Your task to perform on an android device: turn on location history Image 0: 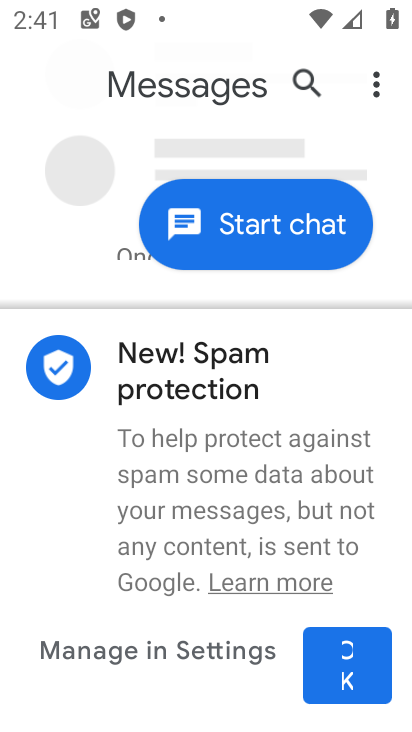
Step 0: press home button
Your task to perform on an android device: turn on location history Image 1: 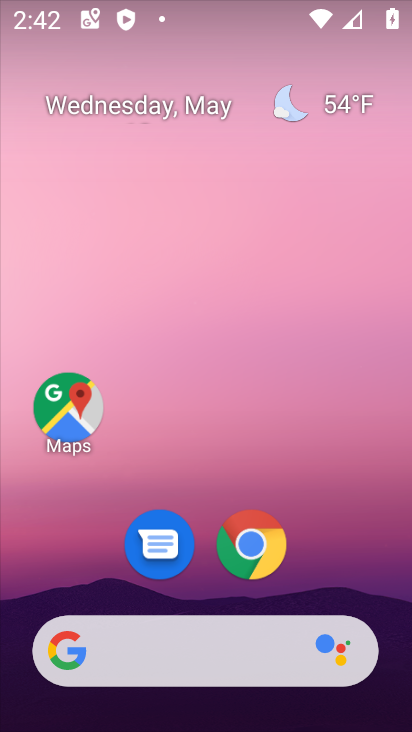
Step 1: drag from (305, 587) to (187, 2)
Your task to perform on an android device: turn on location history Image 2: 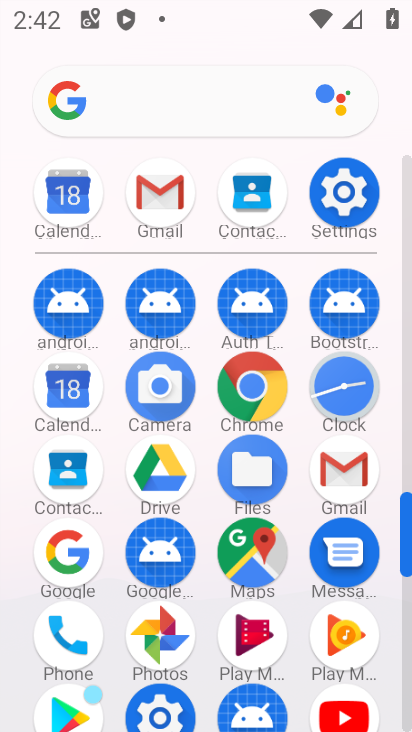
Step 2: click (358, 205)
Your task to perform on an android device: turn on location history Image 3: 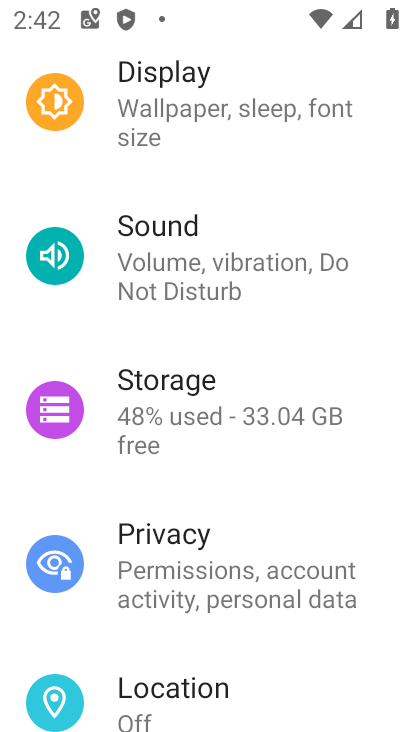
Step 3: drag from (218, 572) to (193, 336)
Your task to perform on an android device: turn on location history Image 4: 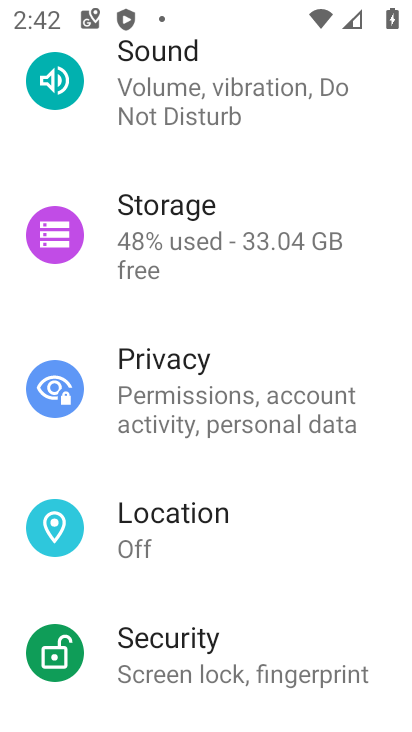
Step 4: click (200, 528)
Your task to perform on an android device: turn on location history Image 5: 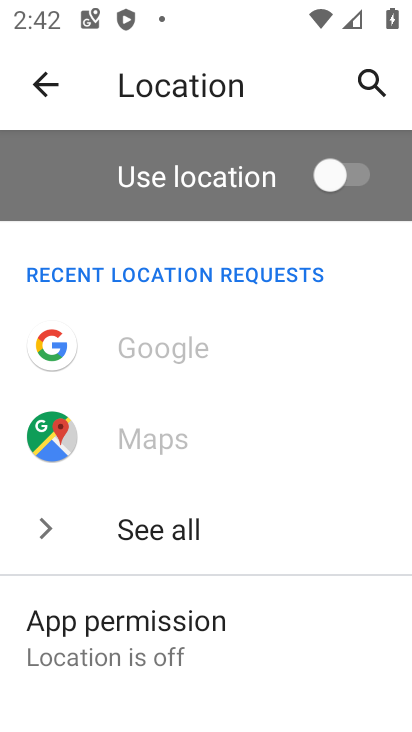
Step 5: drag from (257, 531) to (184, 215)
Your task to perform on an android device: turn on location history Image 6: 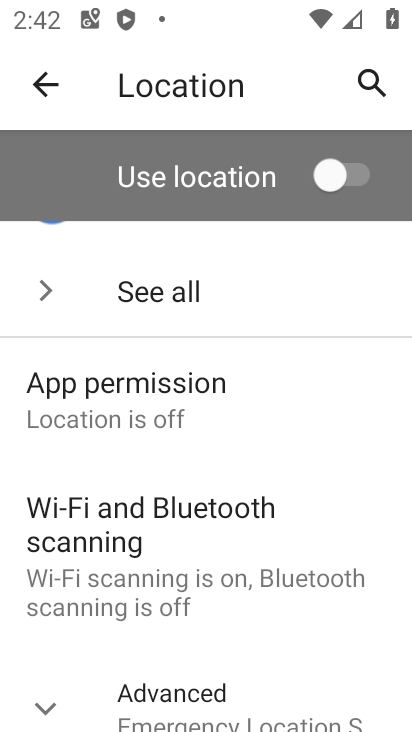
Step 6: drag from (185, 509) to (122, 207)
Your task to perform on an android device: turn on location history Image 7: 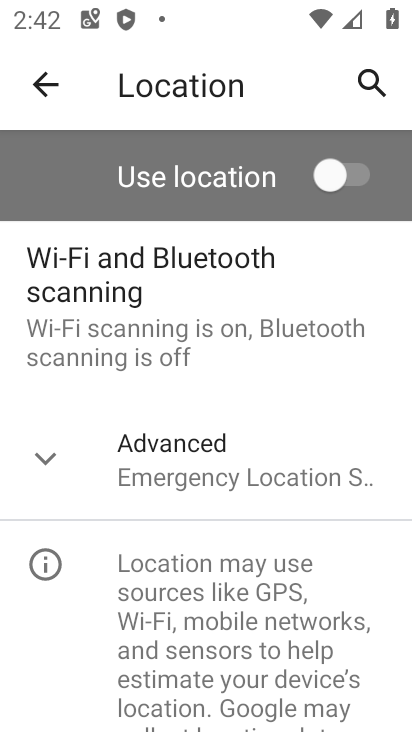
Step 7: click (97, 448)
Your task to perform on an android device: turn on location history Image 8: 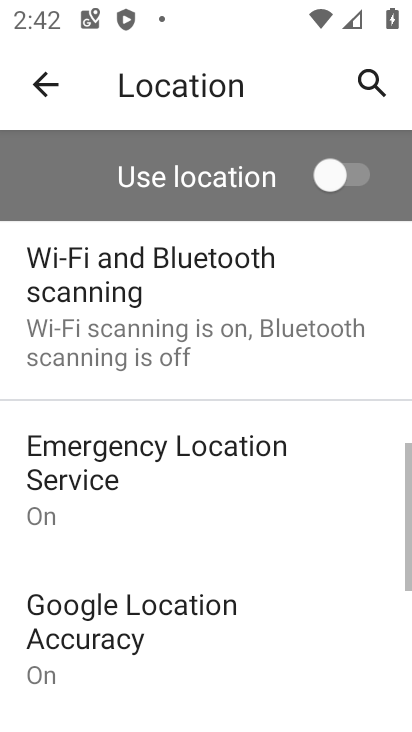
Step 8: drag from (151, 616) to (115, 366)
Your task to perform on an android device: turn on location history Image 9: 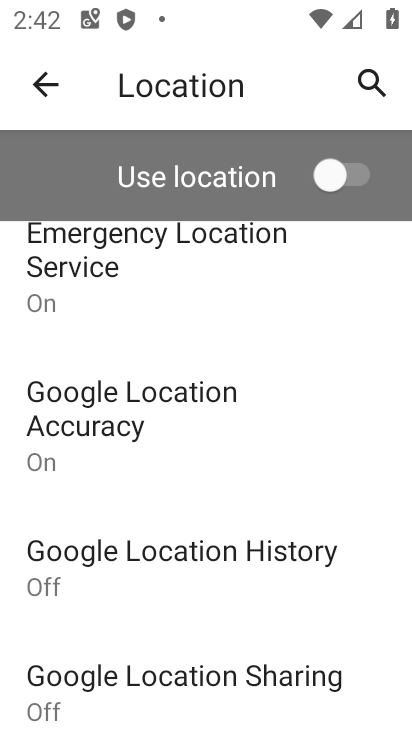
Step 9: click (162, 583)
Your task to perform on an android device: turn on location history Image 10: 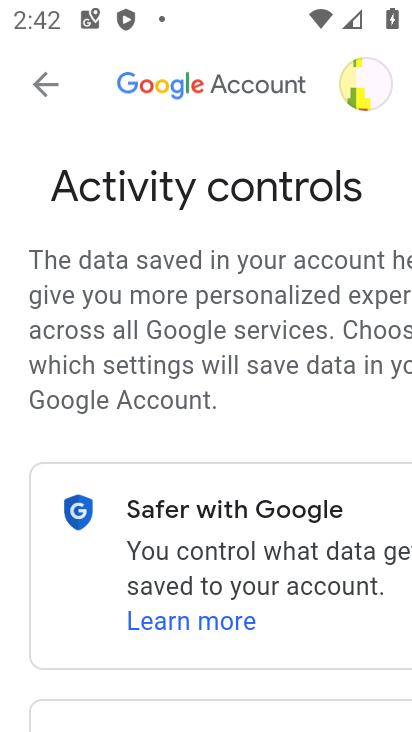
Step 10: drag from (224, 484) to (126, 153)
Your task to perform on an android device: turn on location history Image 11: 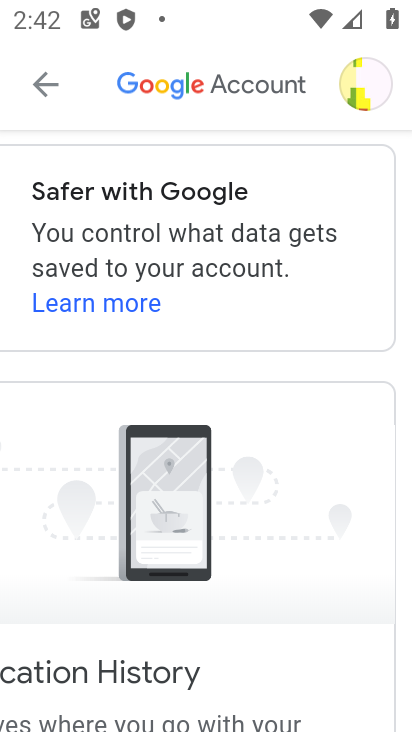
Step 11: drag from (188, 562) to (204, 132)
Your task to perform on an android device: turn on location history Image 12: 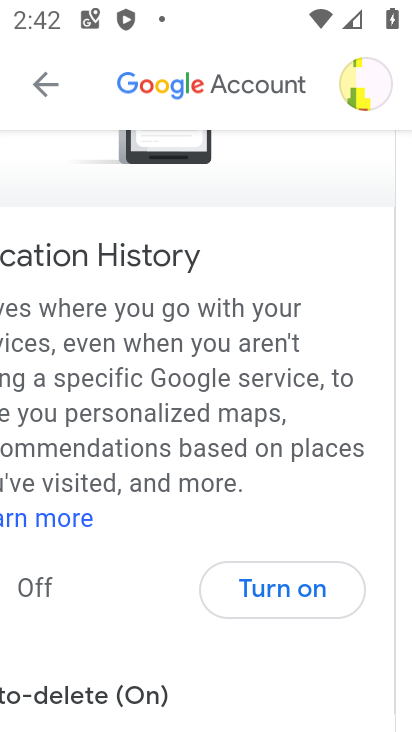
Step 12: click (52, 590)
Your task to perform on an android device: turn on location history Image 13: 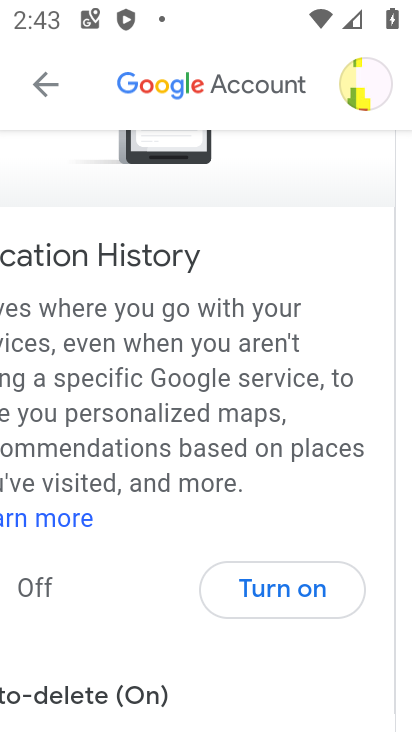
Step 13: click (52, 590)
Your task to perform on an android device: turn on location history Image 14: 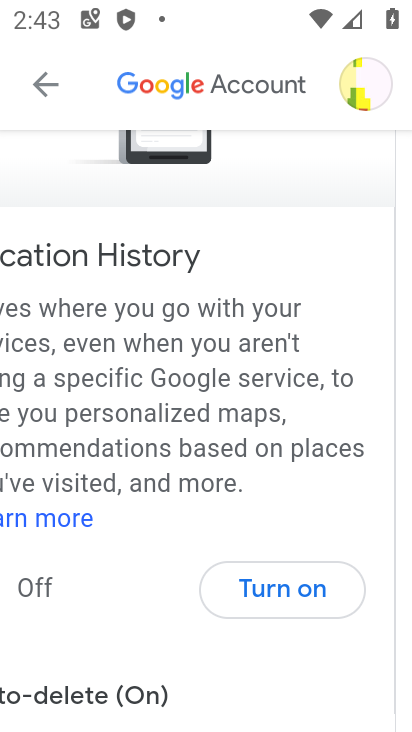
Step 14: click (302, 593)
Your task to perform on an android device: turn on location history Image 15: 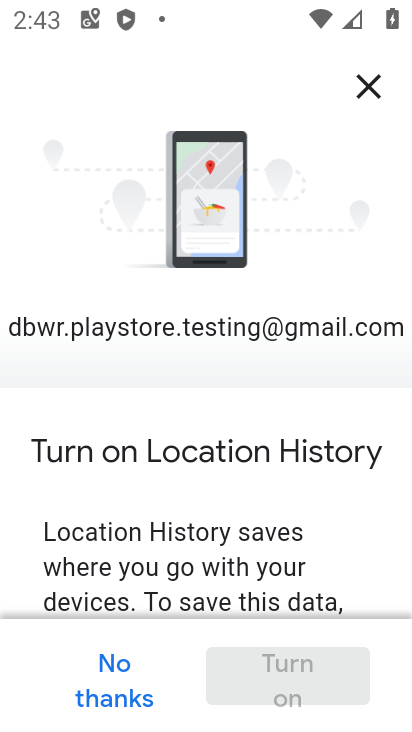
Step 15: click (274, 657)
Your task to perform on an android device: turn on location history Image 16: 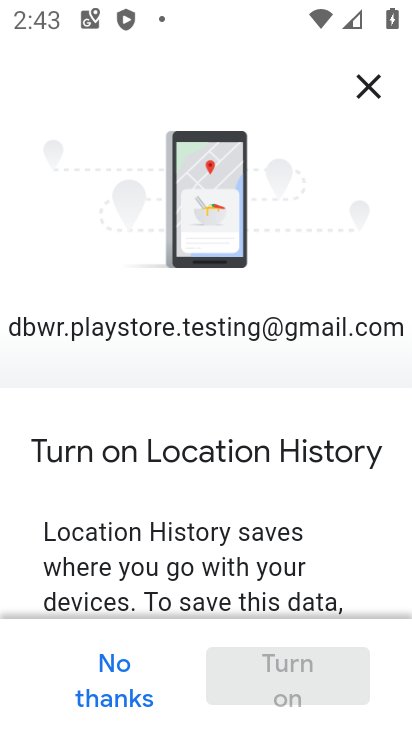
Step 16: click (226, 375)
Your task to perform on an android device: turn on location history Image 17: 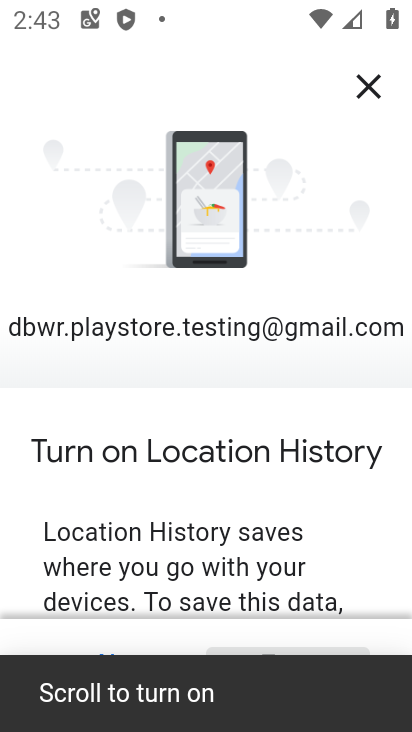
Step 17: drag from (223, 482) to (172, 222)
Your task to perform on an android device: turn on location history Image 18: 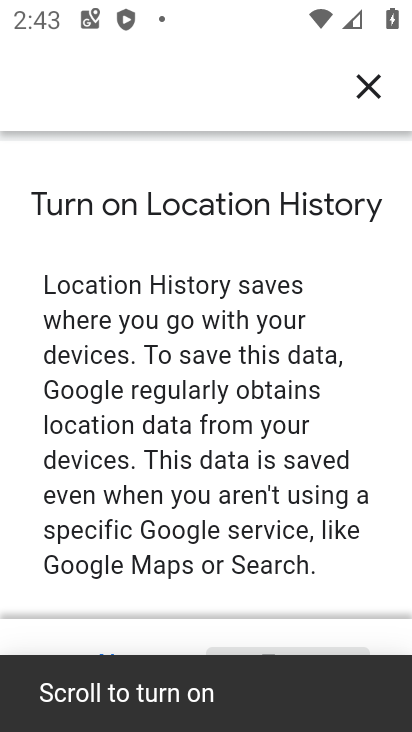
Step 18: drag from (247, 489) to (235, 207)
Your task to perform on an android device: turn on location history Image 19: 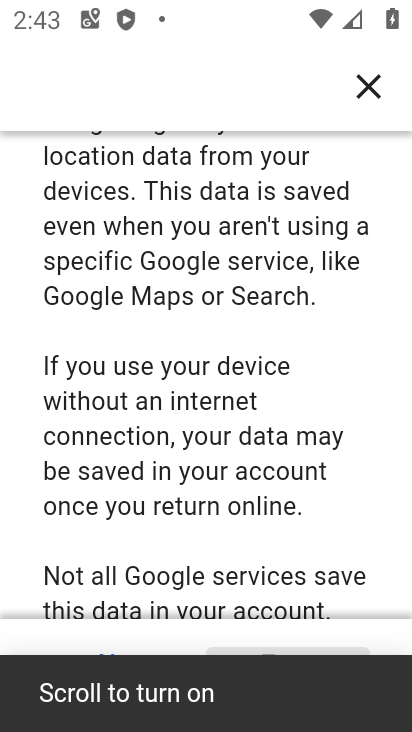
Step 19: drag from (222, 480) to (190, 257)
Your task to perform on an android device: turn on location history Image 20: 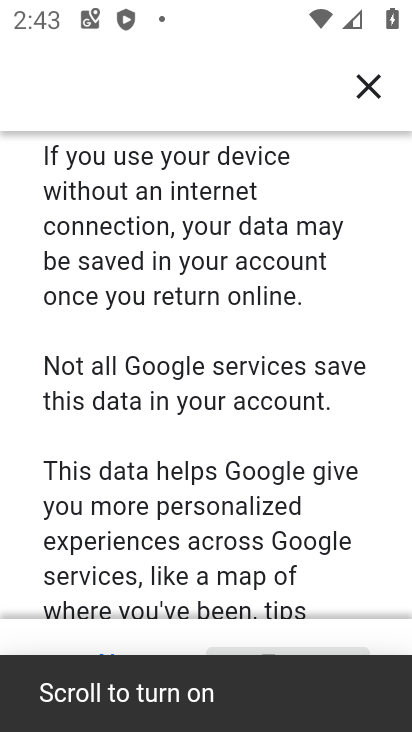
Step 20: drag from (235, 497) to (202, 217)
Your task to perform on an android device: turn on location history Image 21: 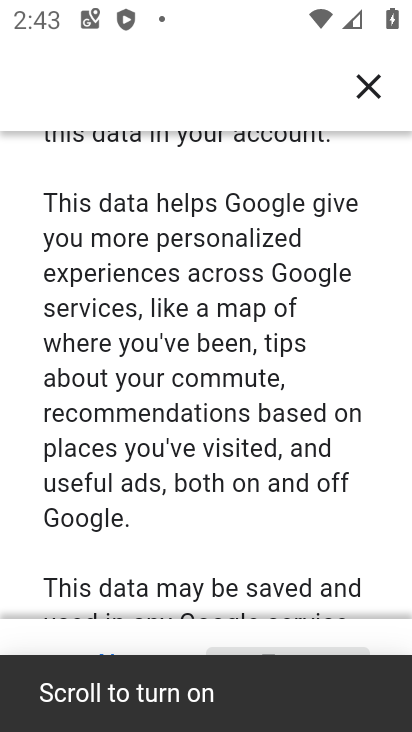
Step 21: drag from (274, 528) to (259, 26)
Your task to perform on an android device: turn on location history Image 22: 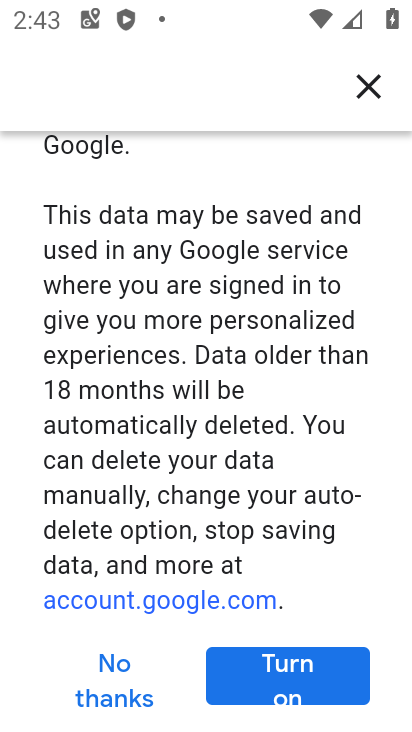
Step 22: click (295, 680)
Your task to perform on an android device: turn on location history Image 23: 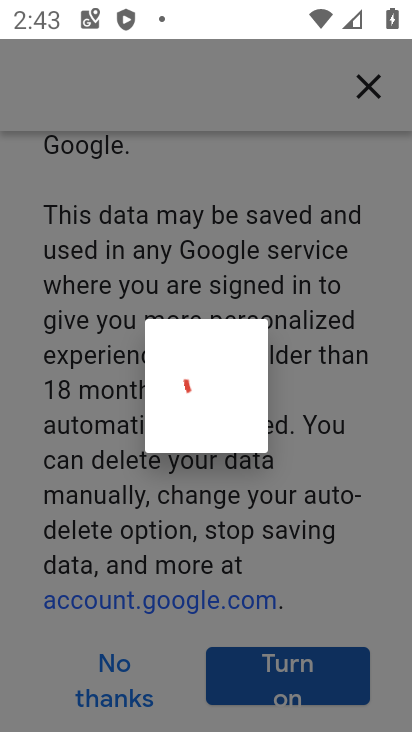
Step 23: task complete